Your task to perform on an android device: toggle data saver in the chrome app Image 0: 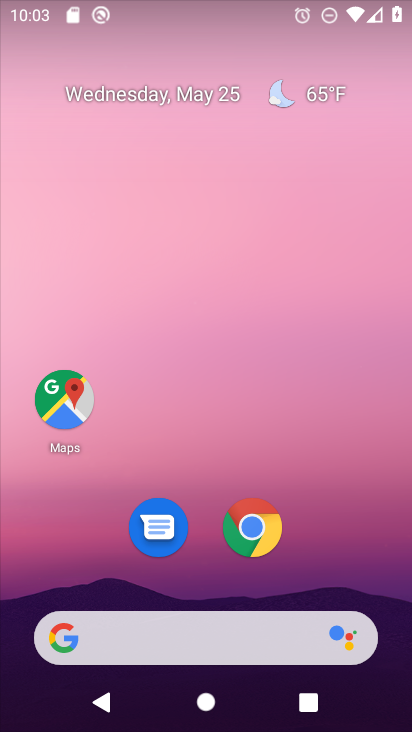
Step 0: click (254, 528)
Your task to perform on an android device: toggle data saver in the chrome app Image 1: 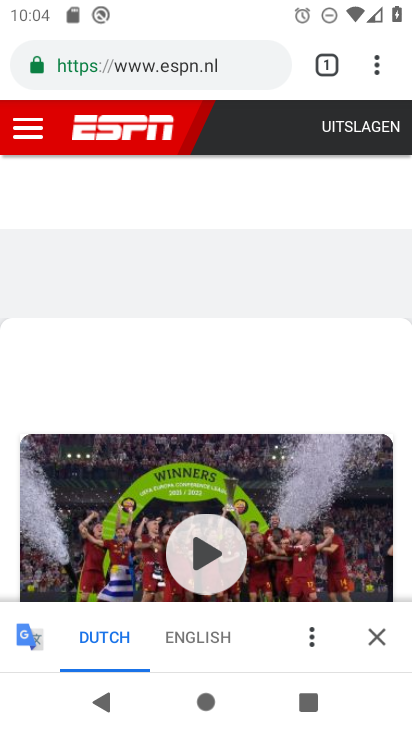
Step 1: click (378, 62)
Your task to perform on an android device: toggle data saver in the chrome app Image 2: 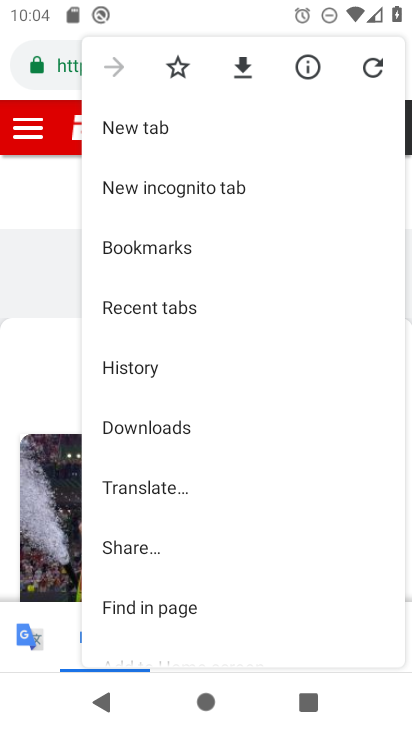
Step 2: drag from (169, 517) to (239, 405)
Your task to perform on an android device: toggle data saver in the chrome app Image 3: 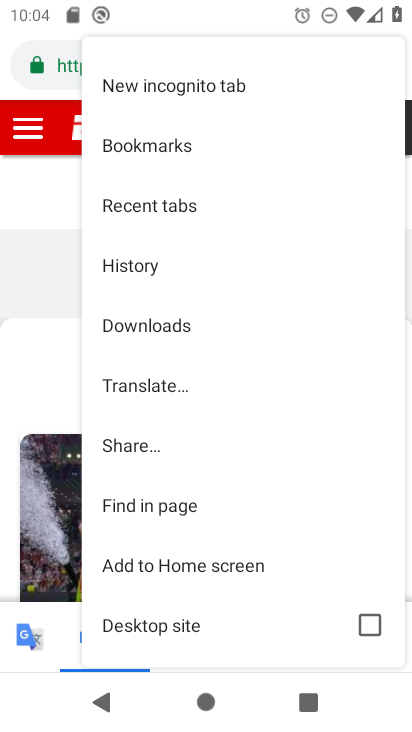
Step 3: drag from (163, 474) to (216, 392)
Your task to perform on an android device: toggle data saver in the chrome app Image 4: 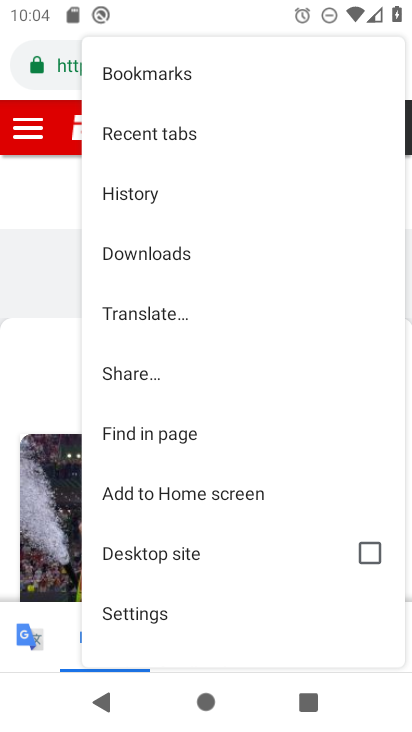
Step 4: drag from (149, 574) to (221, 452)
Your task to perform on an android device: toggle data saver in the chrome app Image 5: 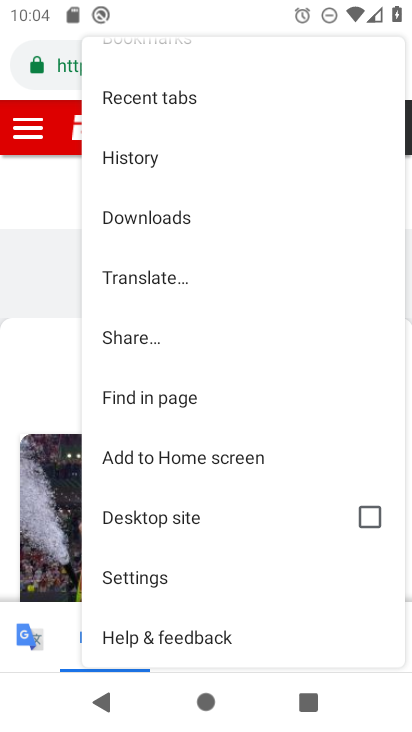
Step 5: click (133, 579)
Your task to perform on an android device: toggle data saver in the chrome app Image 6: 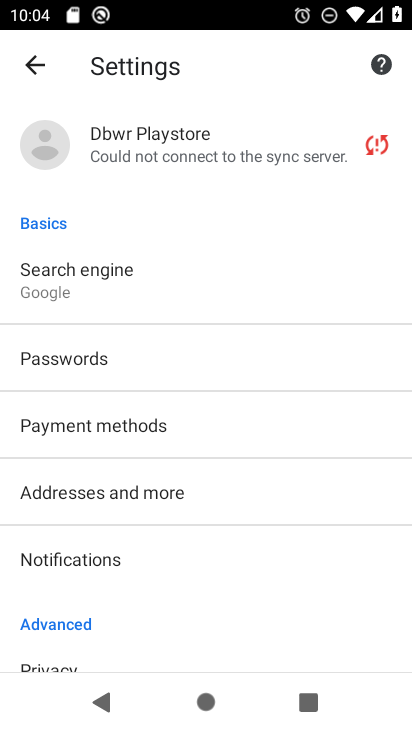
Step 6: drag from (182, 575) to (260, 422)
Your task to perform on an android device: toggle data saver in the chrome app Image 7: 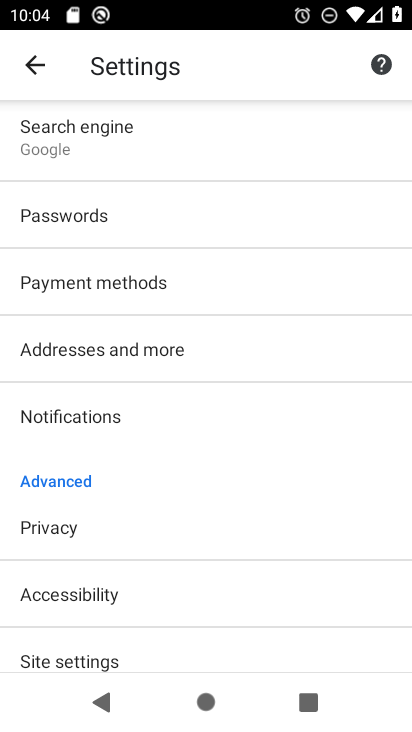
Step 7: drag from (166, 534) to (244, 420)
Your task to perform on an android device: toggle data saver in the chrome app Image 8: 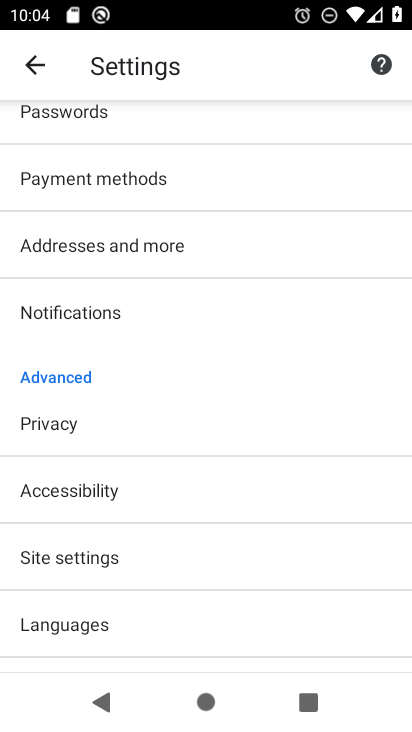
Step 8: drag from (160, 562) to (235, 466)
Your task to perform on an android device: toggle data saver in the chrome app Image 9: 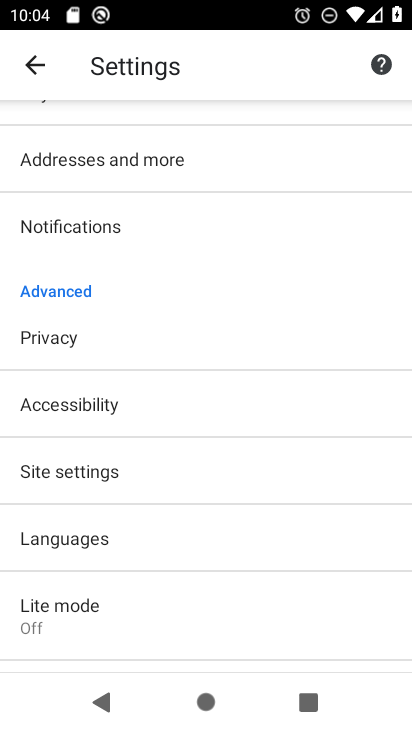
Step 9: click (87, 614)
Your task to perform on an android device: toggle data saver in the chrome app Image 10: 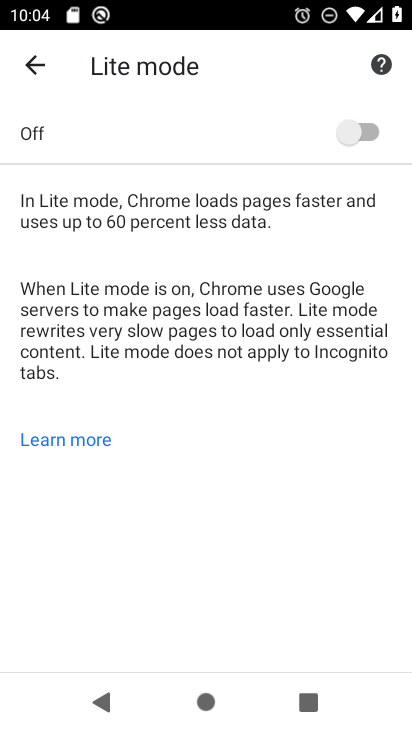
Step 10: click (361, 133)
Your task to perform on an android device: toggle data saver in the chrome app Image 11: 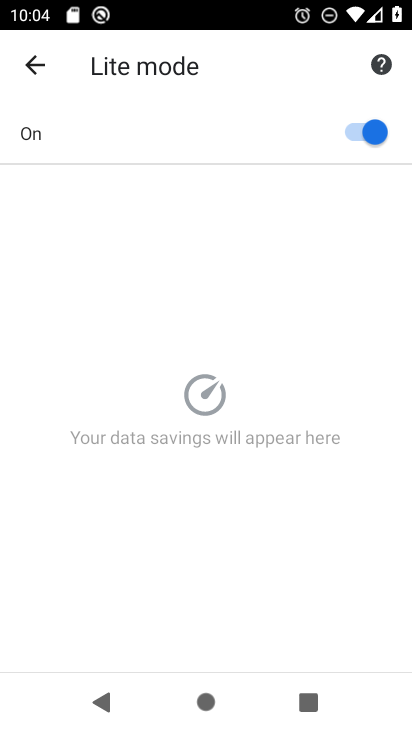
Step 11: task complete